Your task to perform on an android device: Open calendar and show me the first week of next month Image 0: 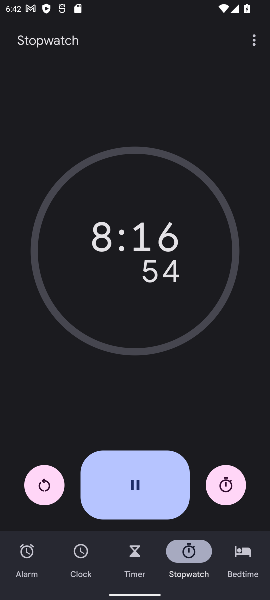
Step 0: press home button
Your task to perform on an android device: Open calendar and show me the first week of next month Image 1: 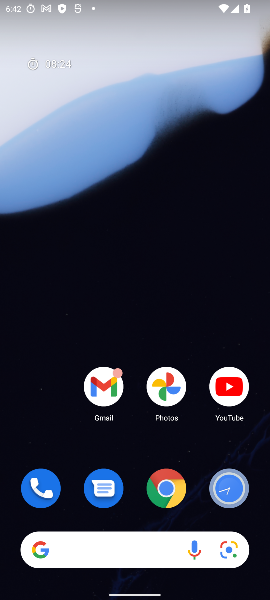
Step 1: drag from (40, 430) to (141, 2)
Your task to perform on an android device: Open calendar and show me the first week of next month Image 2: 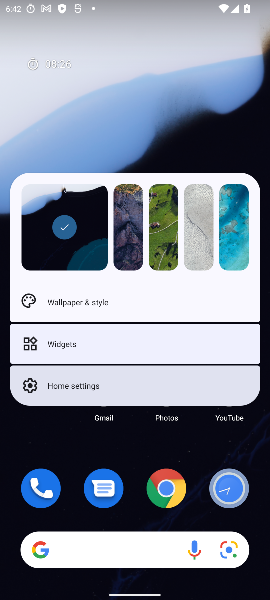
Step 2: click (155, 89)
Your task to perform on an android device: Open calendar and show me the first week of next month Image 3: 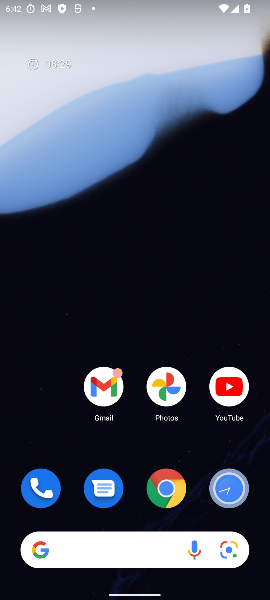
Step 3: drag from (174, 430) to (131, 51)
Your task to perform on an android device: Open calendar and show me the first week of next month Image 4: 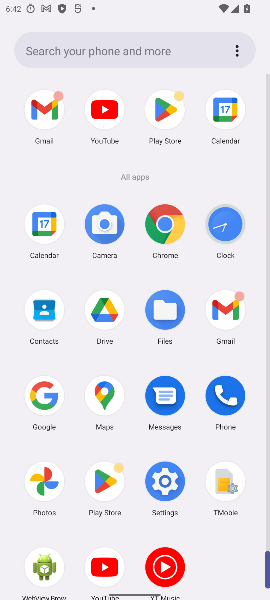
Step 4: click (171, 233)
Your task to perform on an android device: Open calendar and show me the first week of next month Image 5: 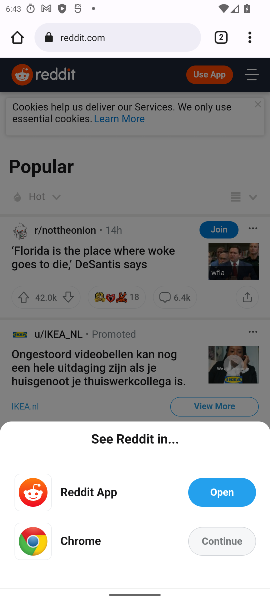
Step 5: press home button
Your task to perform on an android device: Open calendar and show me the first week of next month Image 6: 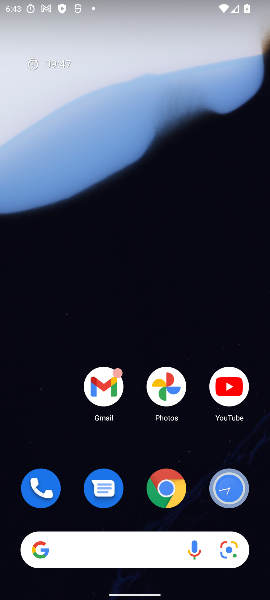
Step 6: drag from (70, 530) to (64, 151)
Your task to perform on an android device: Open calendar and show me the first week of next month Image 7: 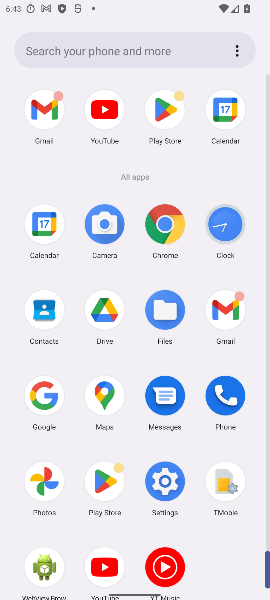
Step 7: click (158, 225)
Your task to perform on an android device: Open calendar and show me the first week of next month Image 8: 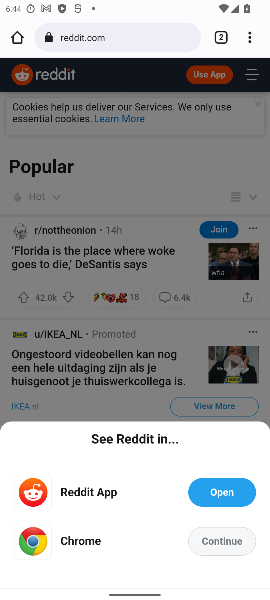
Step 8: press home button
Your task to perform on an android device: Open calendar and show me the first week of next month Image 9: 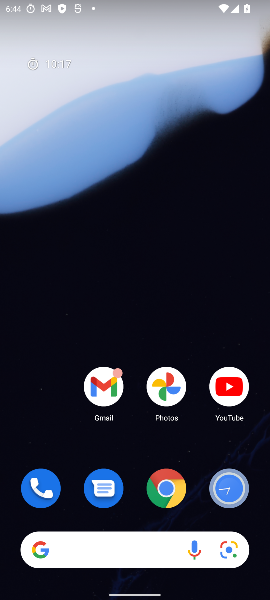
Step 9: drag from (143, 520) to (122, 157)
Your task to perform on an android device: Open calendar and show me the first week of next month Image 10: 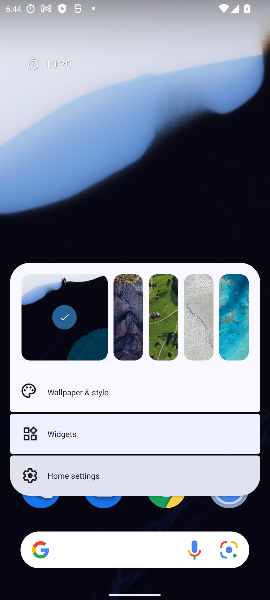
Step 10: click (132, 166)
Your task to perform on an android device: Open calendar and show me the first week of next month Image 11: 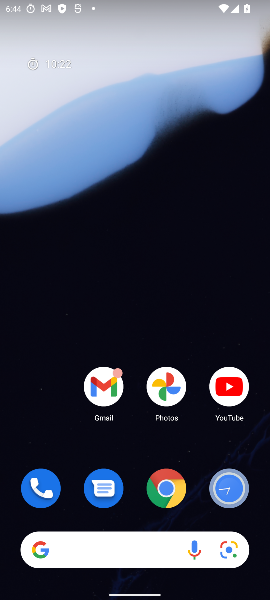
Step 11: drag from (53, 425) to (70, 10)
Your task to perform on an android device: Open calendar and show me the first week of next month Image 12: 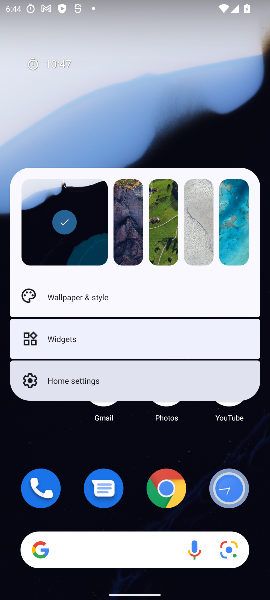
Step 12: press back button
Your task to perform on an android device: Open calendar and show me the first week of next month Image 13: 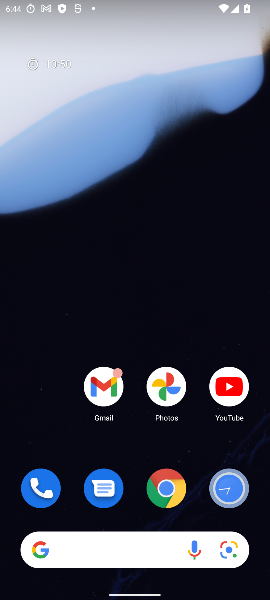
Step 13: drag from (38, 411) to (38, 36)
Your task to perform on an android device: Open calendar and show me the first week of next month Image 14: 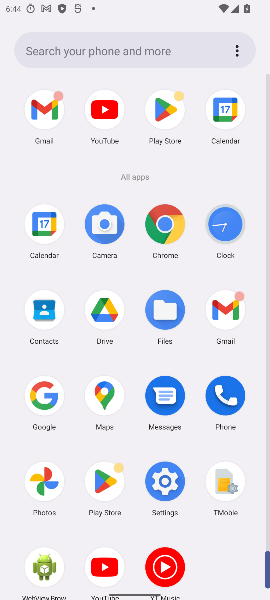
Step 14: click (49, 227)
Your task to perform on an android device: Open calendar and show me the first week of next month Image 15: 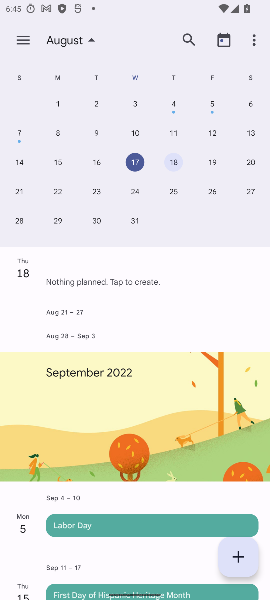
Step 15: drag from (182, 144) to (0, 42)
Your task to perform on an android device: Open calendar and show me the first week of next month Image 16: 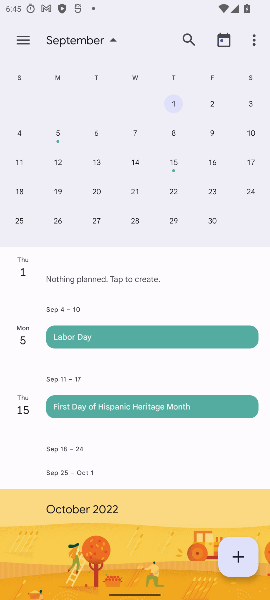
Step 16: click (128, 132)
Your task to perform on an android device: Open calendar and show me the first week of next month Image 17: 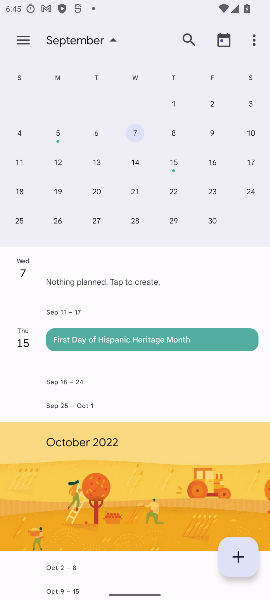
Step 17: task complete